Your task to perform on an android device: Is it going to rain today? Image 0: 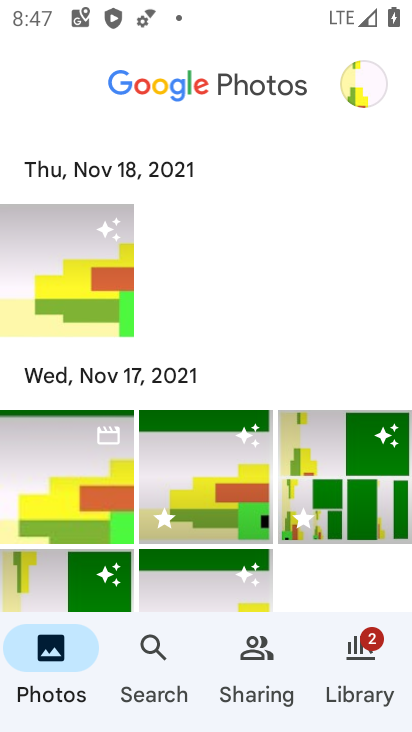
Step 0: click (233, 305)
Your task to perform on an android device: Is it going to rain today? Image 1: 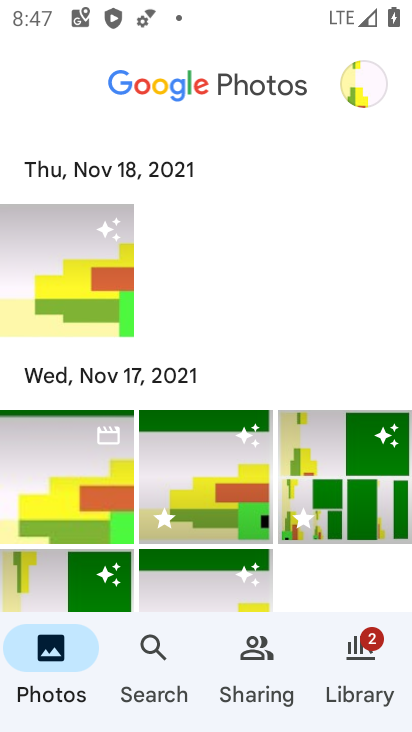
Step 1: press home button
Your task to perform on an android device: Is it going to rain today? Image 2: 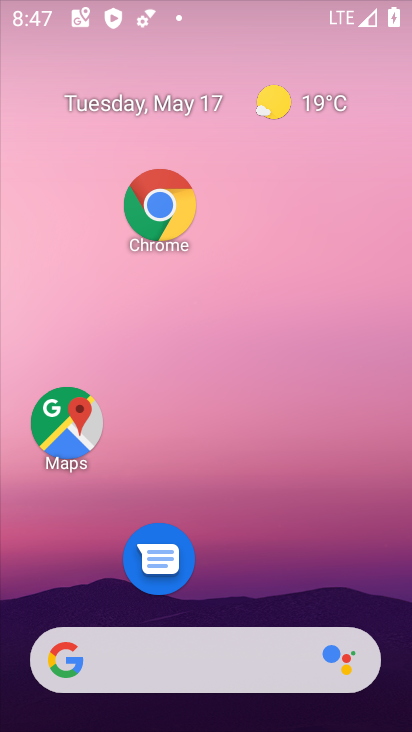
Step 2: drag from (184, 611) to (205, 155)
Your task to perform on an android device: Is it going to rain today? Image 3: 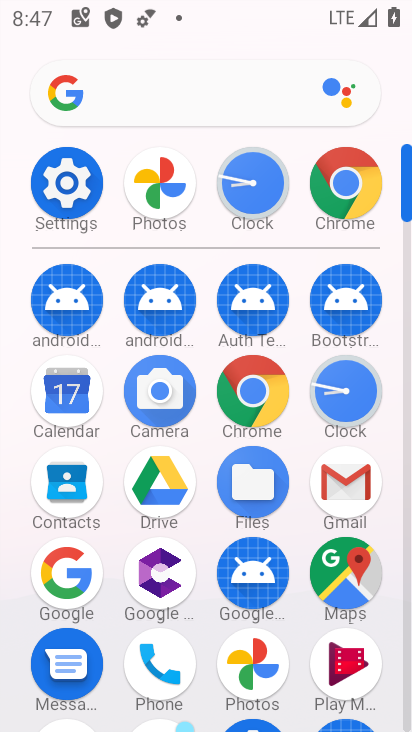
Step 3: click (215, 105)
Your task to perform on an android device: Is it going to rain today? Image 4: 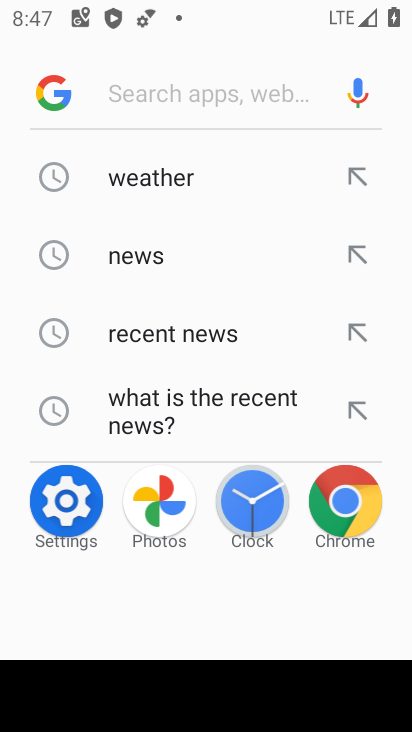
Step 4: type "rain today"
Your task to perform on an android device: Is it going to rain today? Image 5: 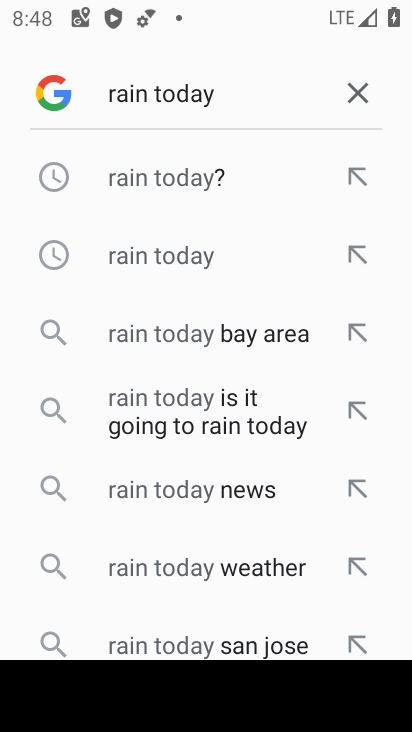
Step 5: click (49, 183)
Your task to perform on an android device: Is it going to rain today? Image 6: 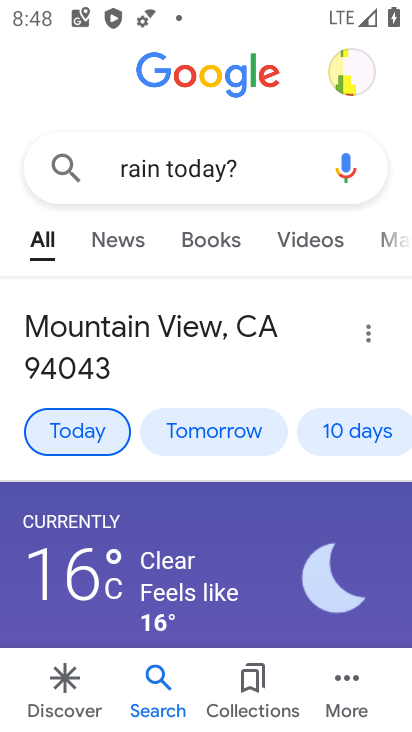
Step 6: task complete